Your task to perform on an android device: toggle sleep mode Image 0: 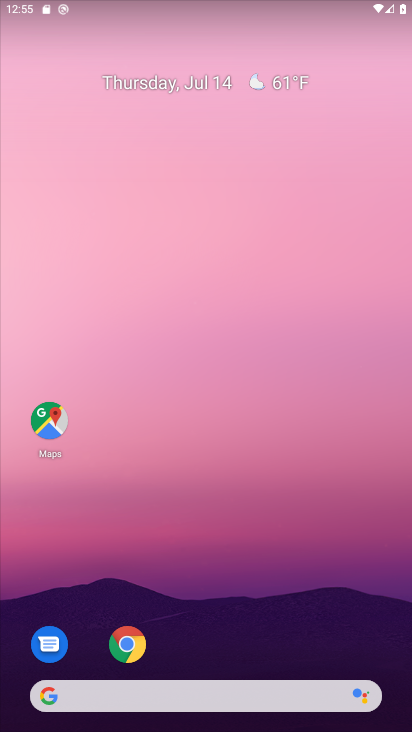
Step 0: drag from (214, 615) to (266, 315)
Your task to perform on an android device: toggle sleep mode Image 1: 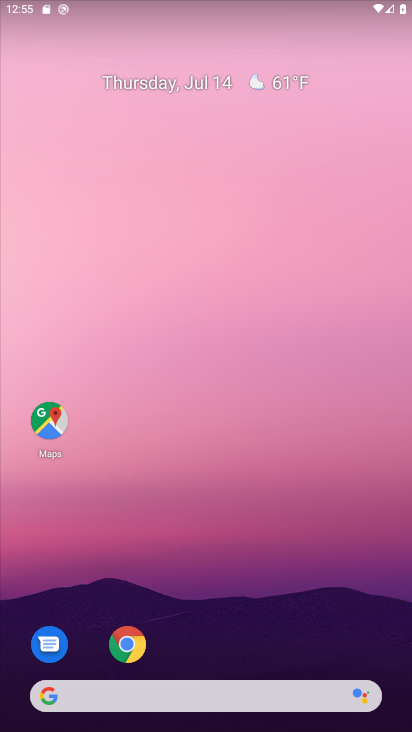
Step 1: drag from (281, 568) to (264, 36)
Your task to perform on an android device: toggle sleep mode Image 2: 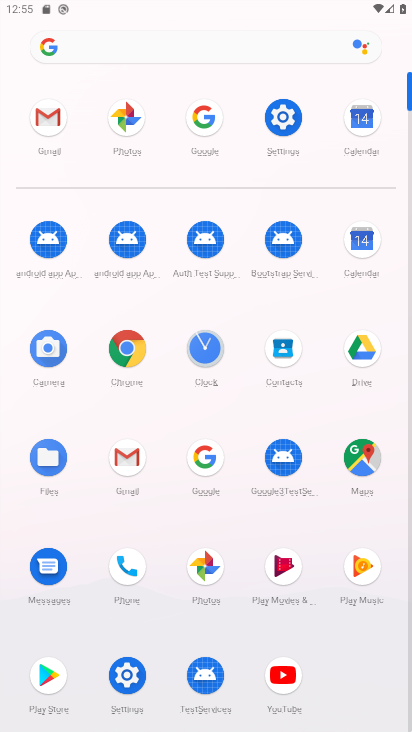
Step 2: click (278, 135)
Your task to perform on an android device: toggle sleep mode Image 3: 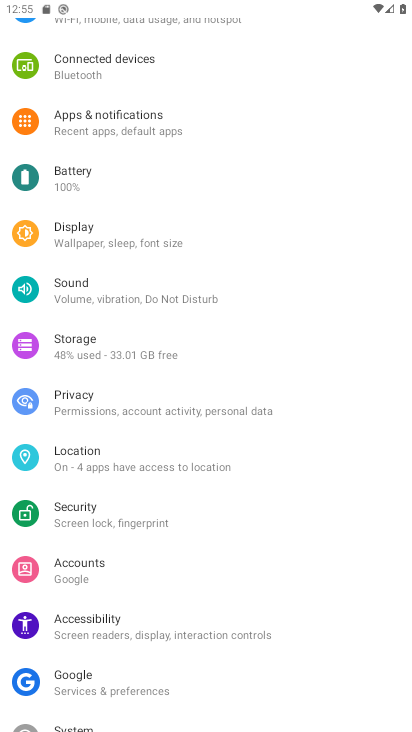
Step 3: click (129, 249)
Your task to perform on an android device: toggle sleep mode Image 4: 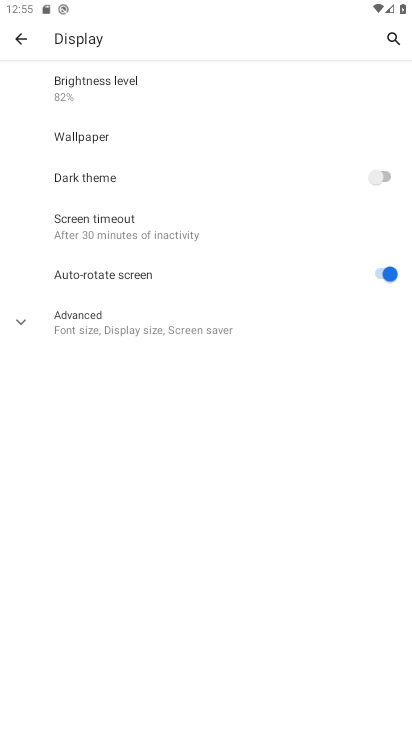
Step 4: click (185, 319)
Your task to perform on an android device: toggle sleep mode Image 5: 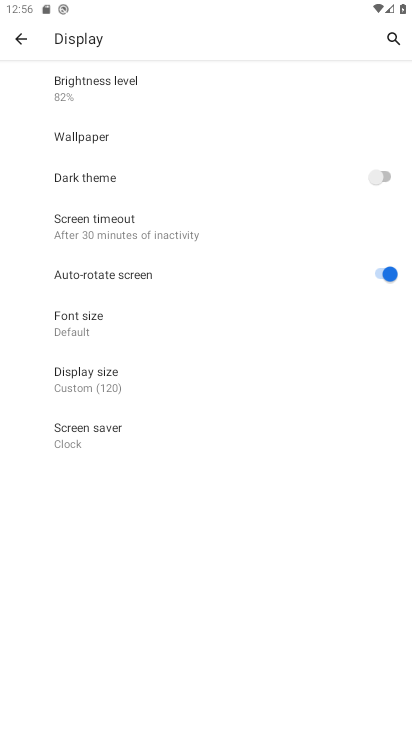
Step 5: task complete